Your task to perform on an android device: What's the weather going to be this weekend? Image 0: 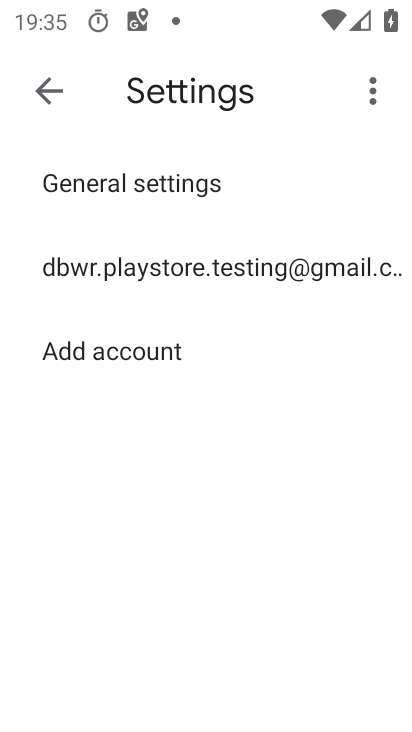
Step 0: press home button
Your task to perform on an android device: What's the weather going to be this weekend? Image 1: 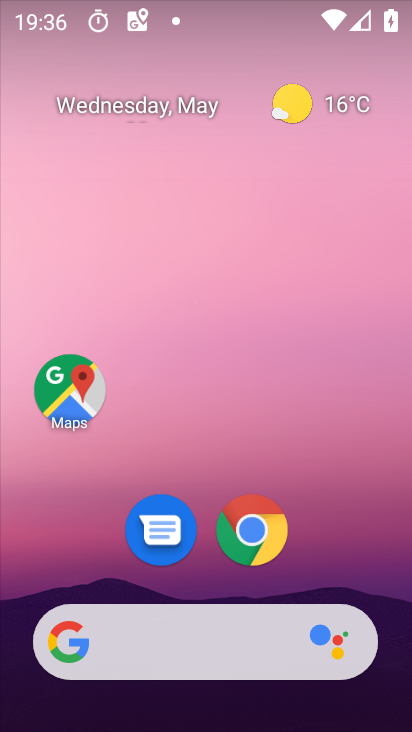
Step 1: drag from (211, 552) to (283, 264)
Your task to perform on an android device: What's the weather going to be this weekend? Image 2: 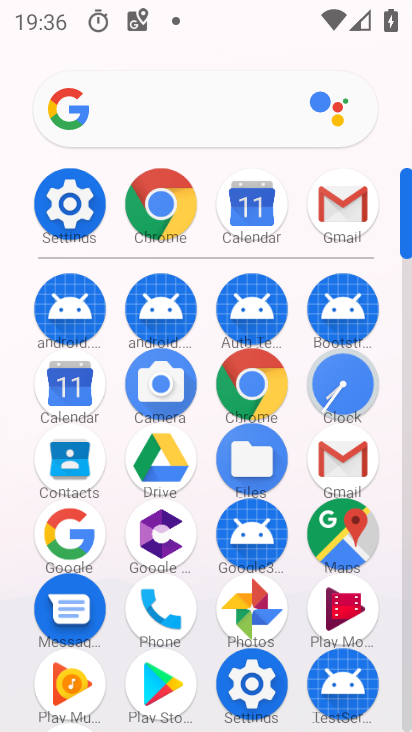
Step 2: click (167, 199)
Your task to perform on an android device: What's the weather going to be this weekend? Image 3: 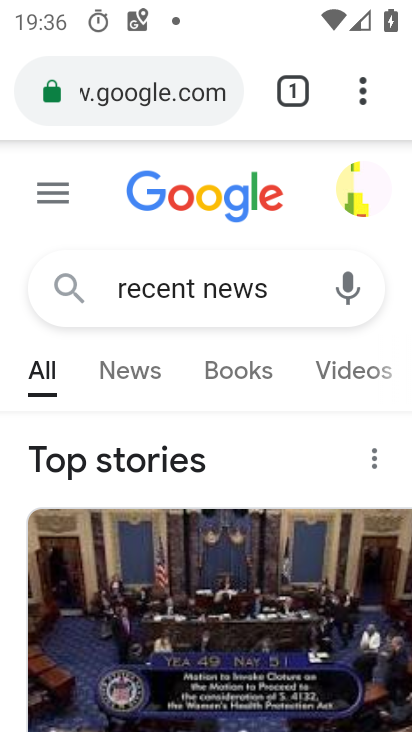
Step 3: drag from (321, 699) to (401, 709)
Your task to perform on an android device: What's the weather going to be this weekend? Image 4: 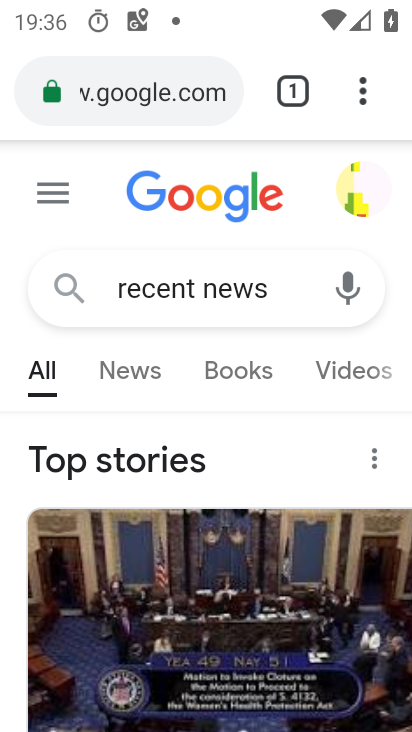
Step 4: click (135, 92)
Your task to perform on an android device: What's the weather going to be this weekend? Image 5: 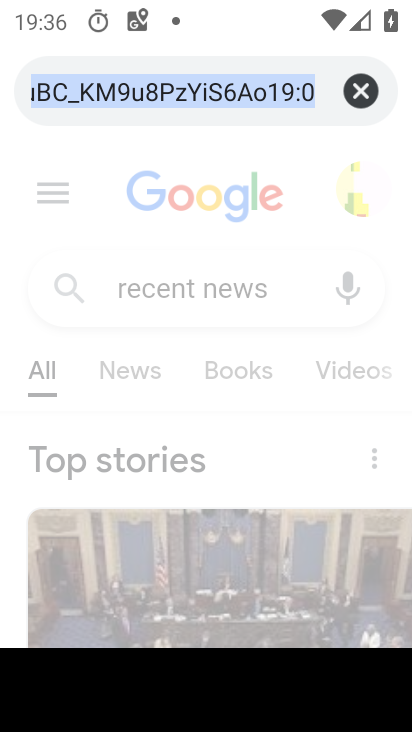
Step 5: type "What's the weather going to be this weekend?"
Your task to perform on an android device: What's the weather going to be this weekend? Image 6: 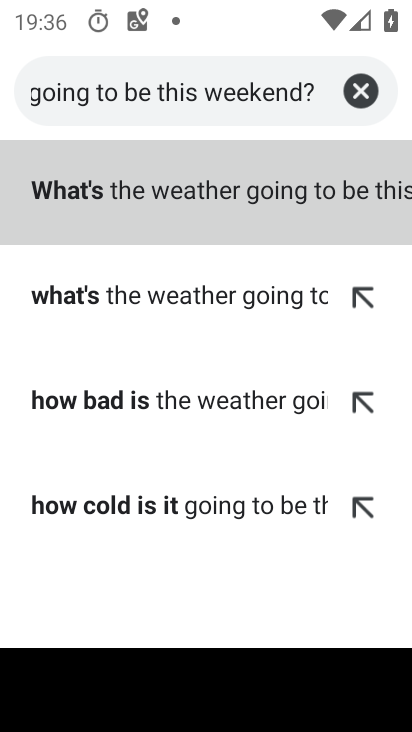
Step 6: click (168, 221)
Your task to perform on an android device: What's the weather going to be this weekend? Image 7: 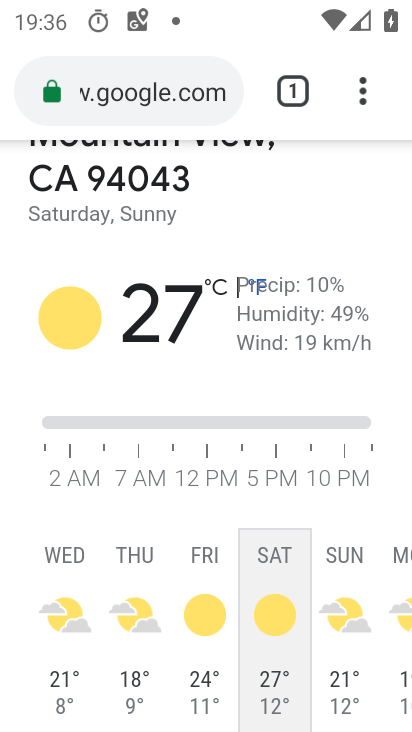
Step 7: task complete